Your task to perform on an android device: toggle javascript in the chrome app Image 0: 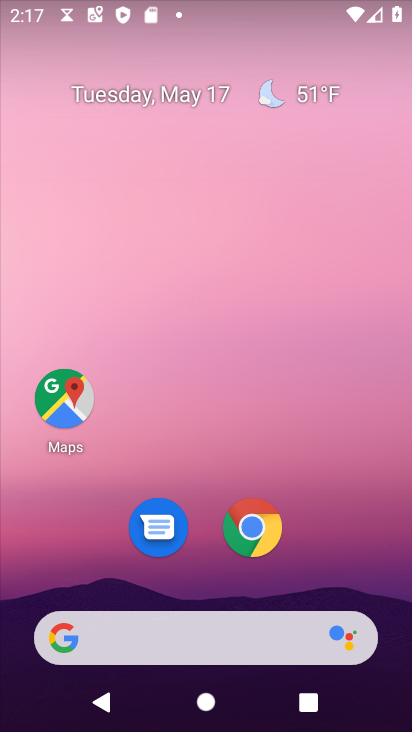
Step 0: click (256, 525)
Your task to perform on an android device: toggle javascript in the chrome app Image 1: 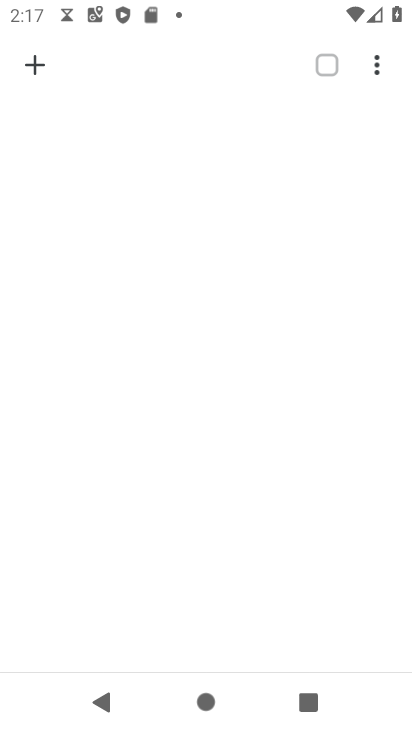
Step 1: click (377, 64)
Your task to perform on an android device: toggle javascript in the chrome app Image 2: 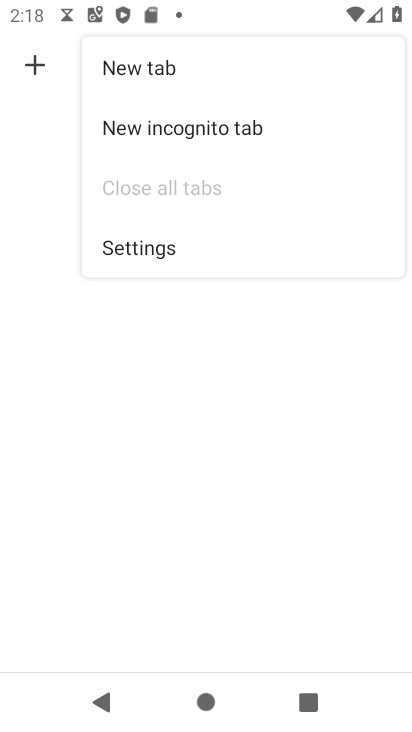
Step 2: click (171, 249)
Your task to perform on an android device: toggle javascript in the chrome app Image 3: 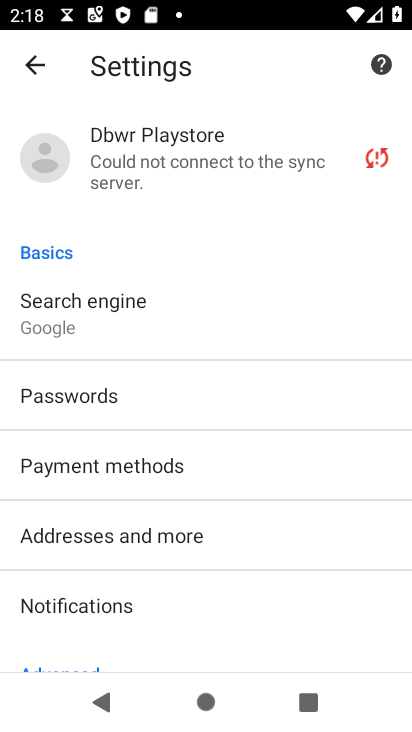
Step 3: drag from (172, 603) to (224, 525)
Your task to perform on an android device: toggle javascript in the chrome app Image 4: 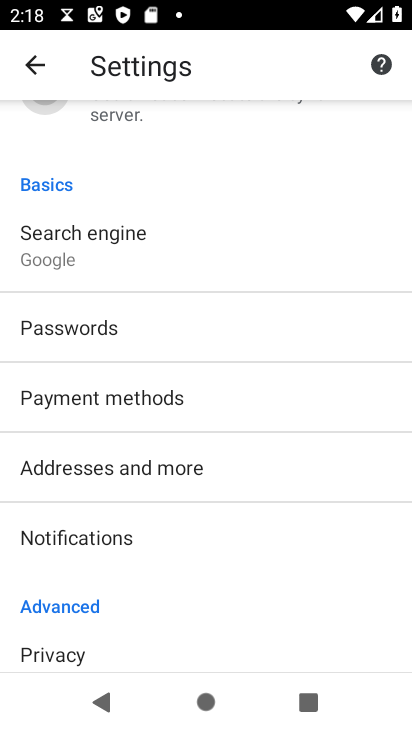
Step 4: drag from (161, 600) to (264, 482)
Your task to perform on an android device: toggle javascript in the chrome app Image 5: 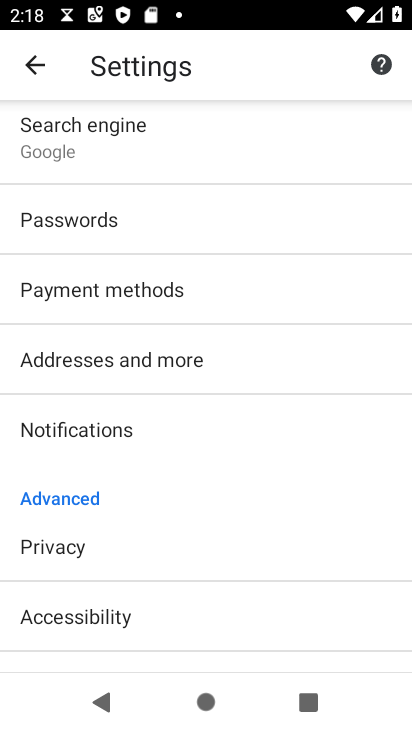
Step 5: drag from (147, 550) to (208, 444)
Your task to perform on an android device: toggle javascript in the chrome app Image 6: 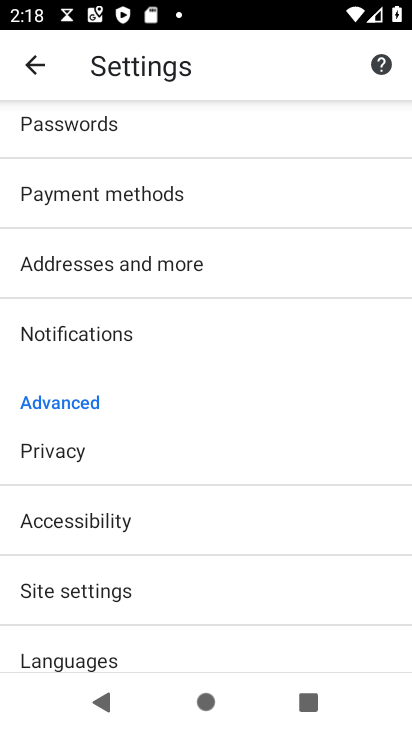
Step 6: drag from (146, 531) to (160, 484)
Your task to perform on an android device: toggle javascript in the chrome app Image 7: 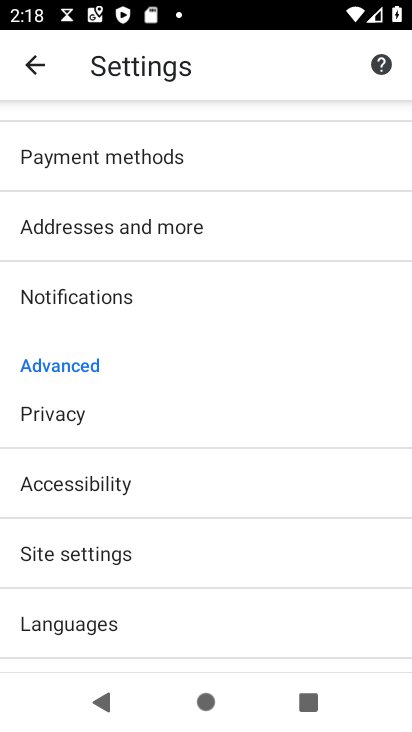
Step 7: click (125, 549)
Your task to perform on an android device: toggle javascript in the chrome app Image 8: 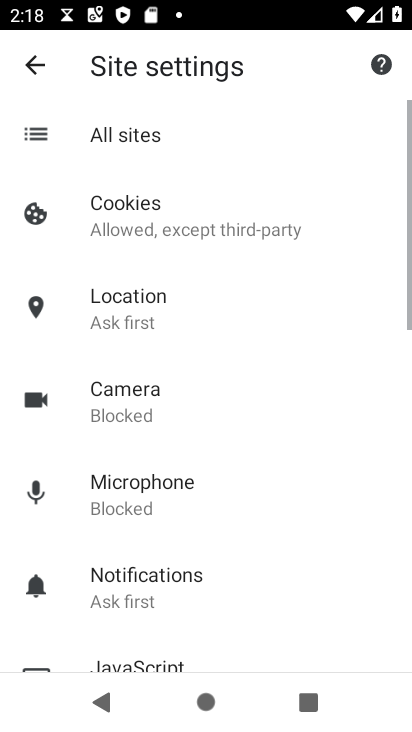
Step 8: drag from (156, 544) to (179, 482)
Your task to perform on an android device: toggle javascript in the chrome app Image 9: 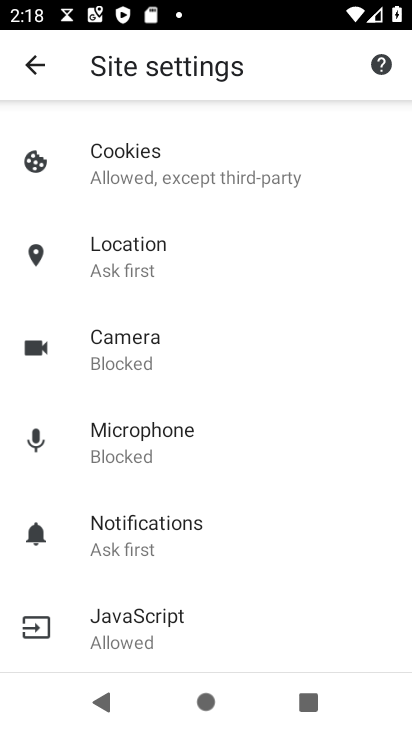
Step 9: drag from (148, 558) to (218, 464)
Your task to perform on an android device: toggle javascript in the chrome app Image 10: 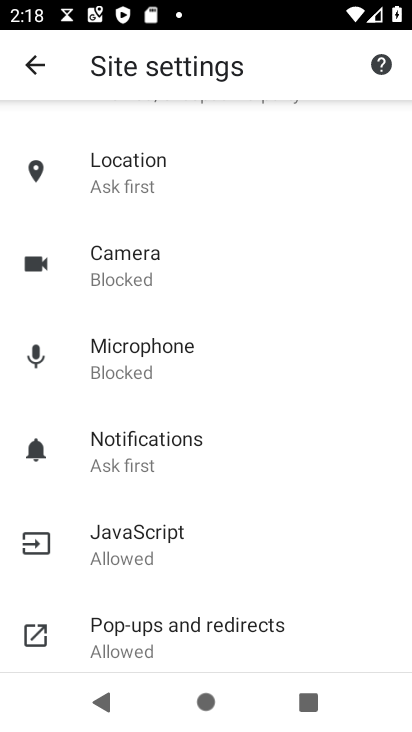
Step 10: click (159, 531)
Your task to perform on an android device: toggle javascript in the chrome app Image 11: 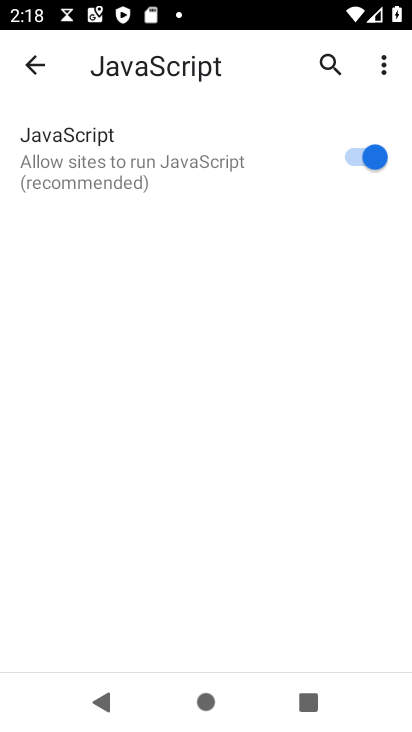
Step 11: click (372, 155)
Your task to perform on an android device: toggle javascript in the chrome app Image 12: 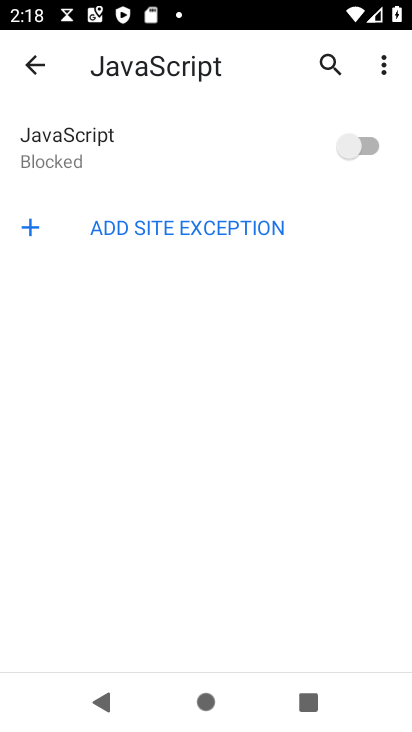
Step 12: task complete